Your task to perform on an android device: remove spam from my inbox in the gmail app Image 0: 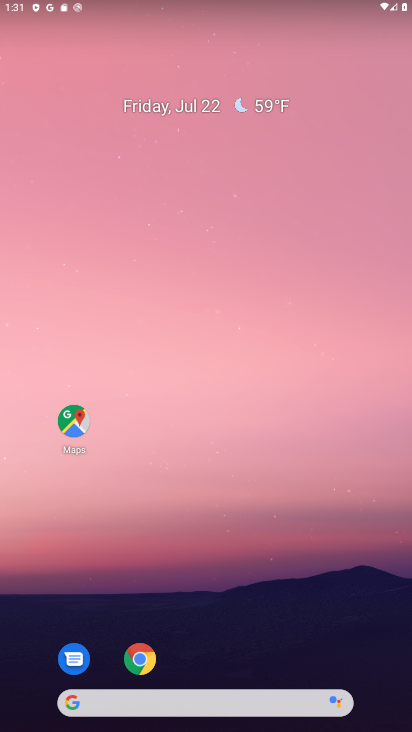
Step 0: drag from (158, 635) to (324, 1)
Your task to perform on an android device: remove spam from my inbox in the gmail app Image 1: 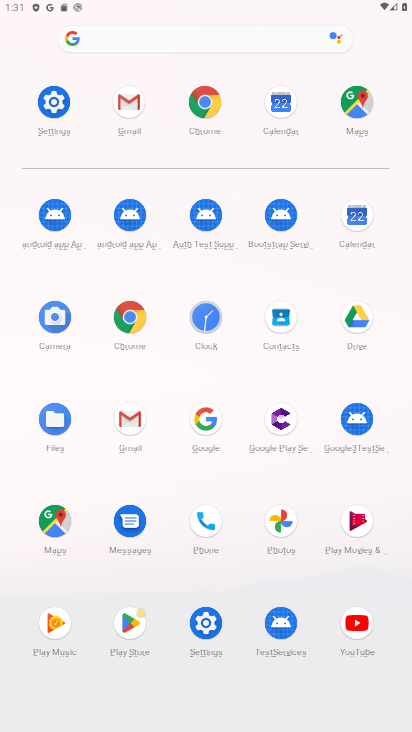
Step 1: click (128, 103)
Your task to perform on an android device: remove spam from my inbox in the gmail app Image 2: 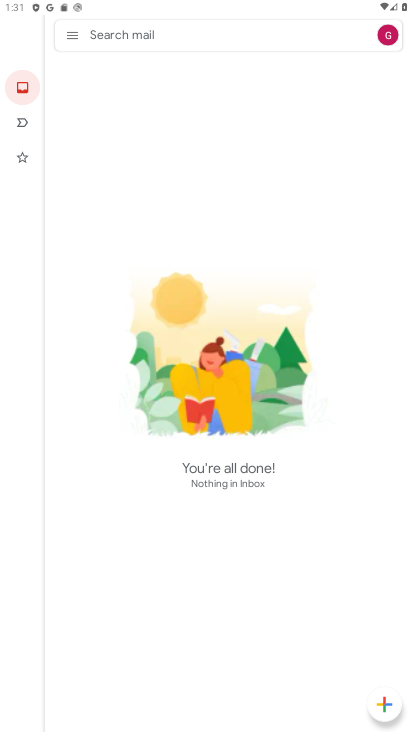
Step 2: click (73, 41)
Your task to perform on an android device: remove spam from my inbox in the gmail app Image 3: 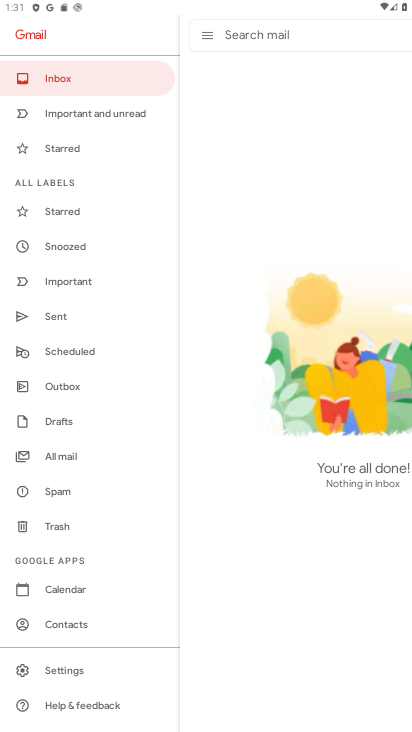
Step 3: click (70, 494)
Your task to perform on an android device: remove spam from my inbox in the gmail app Image 4: 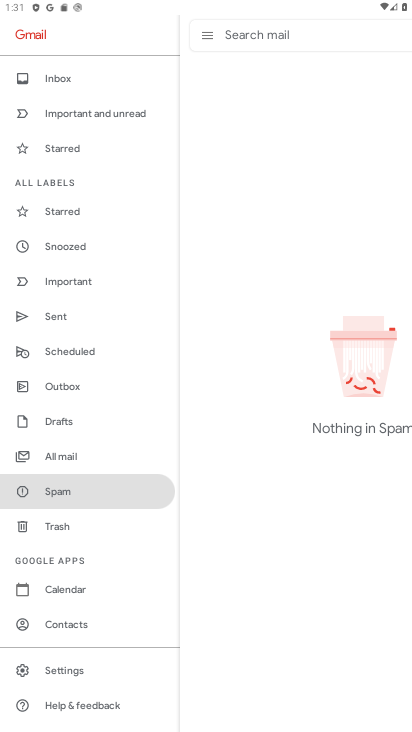
Step 4: task complete